Your task to perform on an android device: add a contact in the contacts app Image 0: 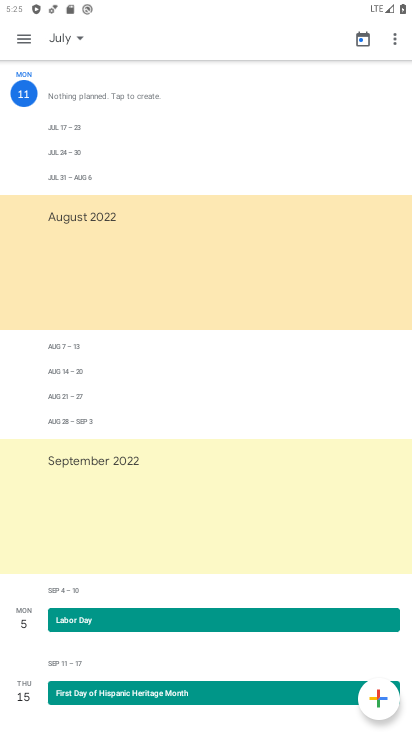
Step 0: press home button
Your task to perform on an android device: add a contact in the contacts app Image 1: 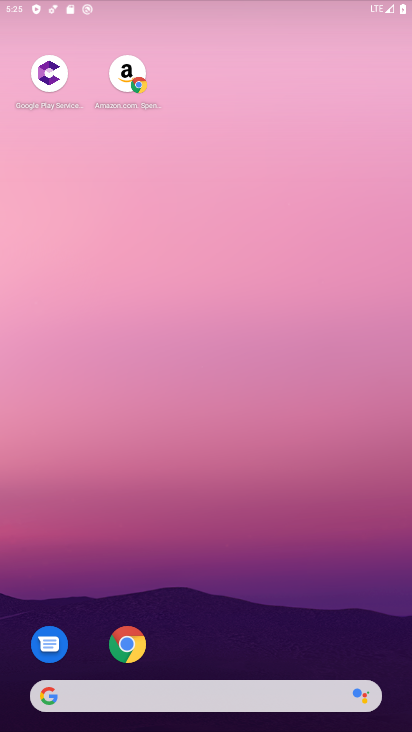
Step 1: drag from (254, 506) to (315, 8)
Your task to perform on an android device: add a contact in the contacts app Image 2: 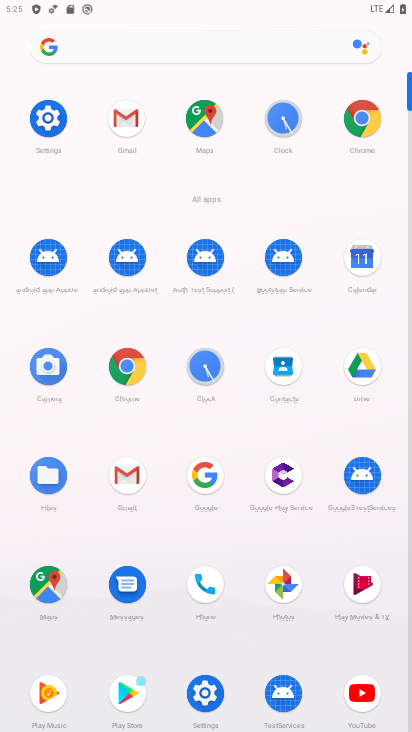
Step 2: click (271, 366)
Your task to perform on an android device: add a contact in the contacts app Image 3: 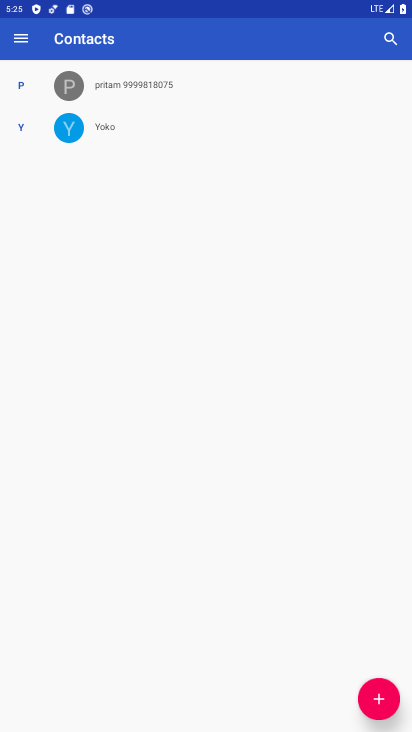
Step 3: click (379, 710)
Your task to perform on an android device: add a contact in the contacts app Image 4: 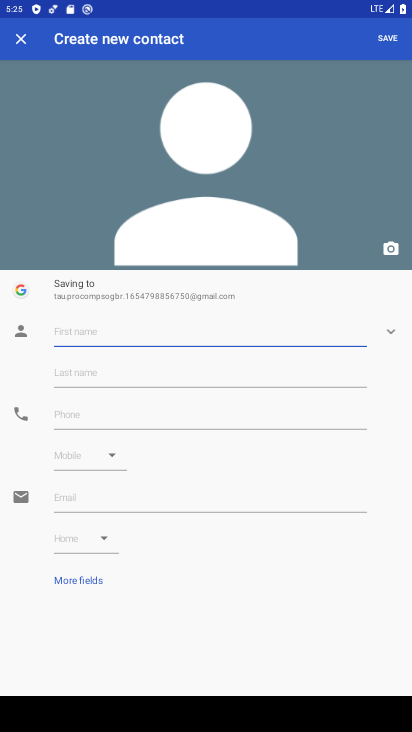
Step 4: type "Mohit"
Your task to perform on an android device: add a contact in the contacts app Image 5: 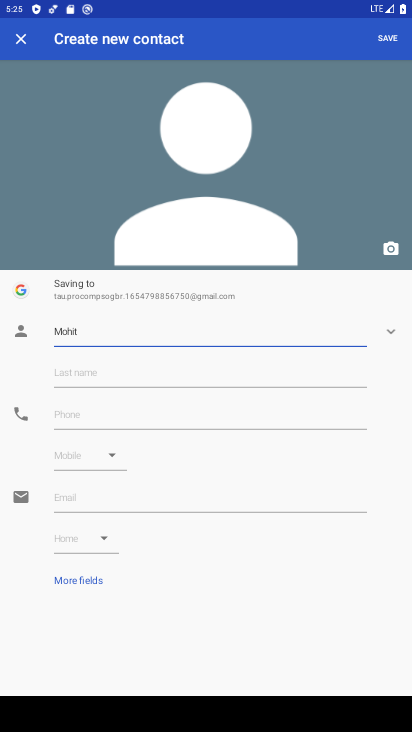
Step 5: click (134, 412)
Your task to perform on an android device: add a contact in the contacts app Image 6: 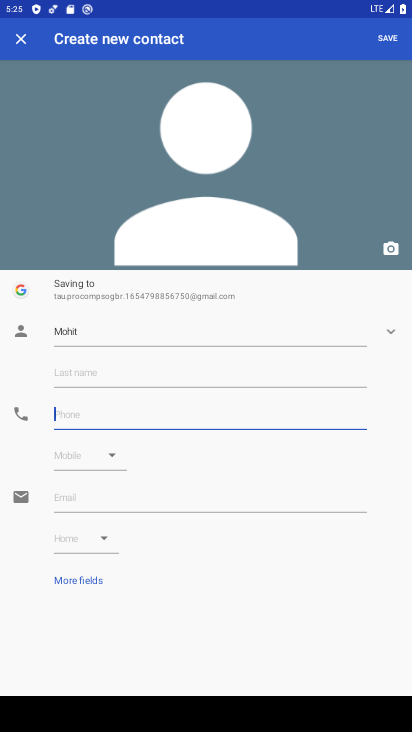
Step 6: type "6397181675"
Your task to perform on an android device: add a contact in the contacts app Image 7: 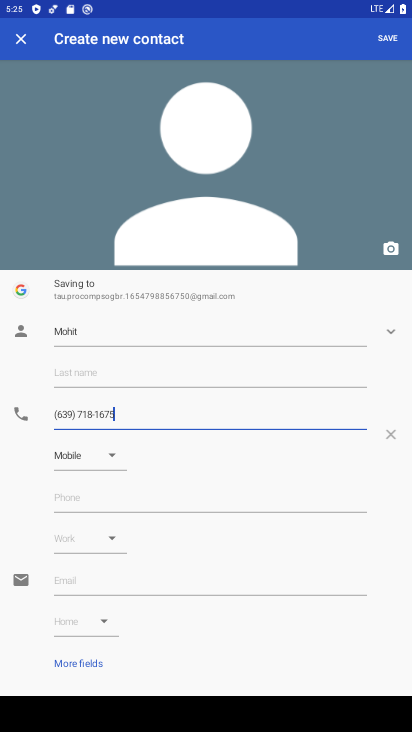
Step 7: click (392, 31)
Your task to perform on an android device: add a contact in the contacts app Image 8: 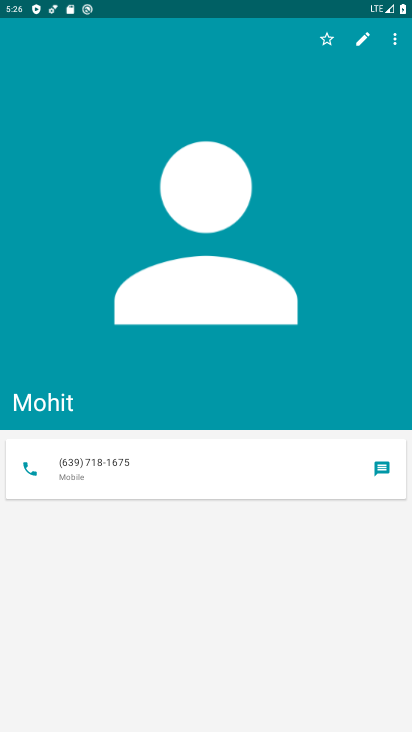
Step 8: task complete